Your task to perform on an android device: open chrome and create a bookmark for the current page Image 0: 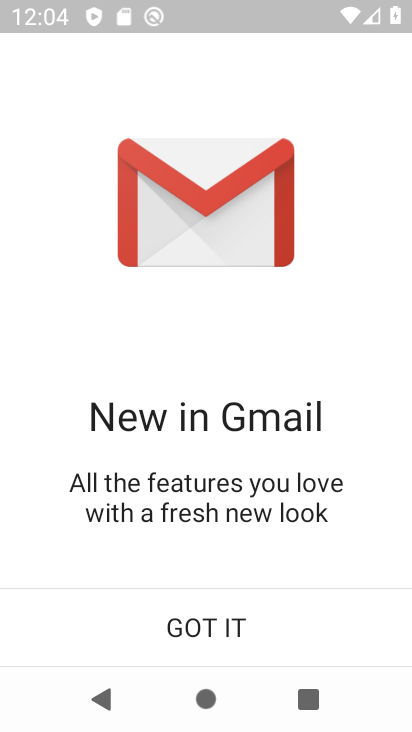
Step 0: press back button
Your task to perform on an android device: open chrome and create a bookmark for the current page Image 1: 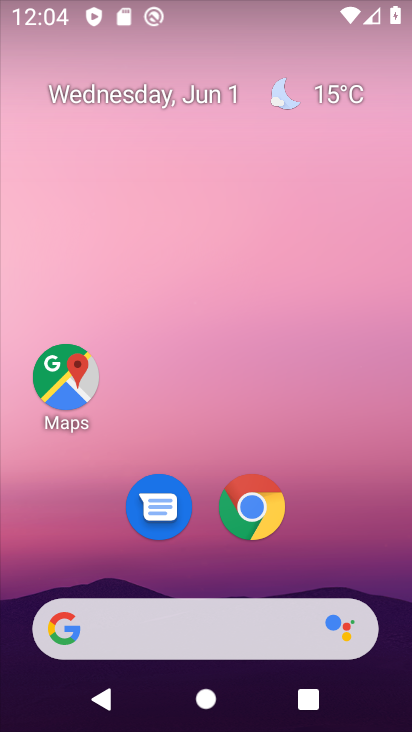
Step 1: click (251, 507)
Your task to perform on an android device: open chrome and create a bookmark for the current page Image 2: 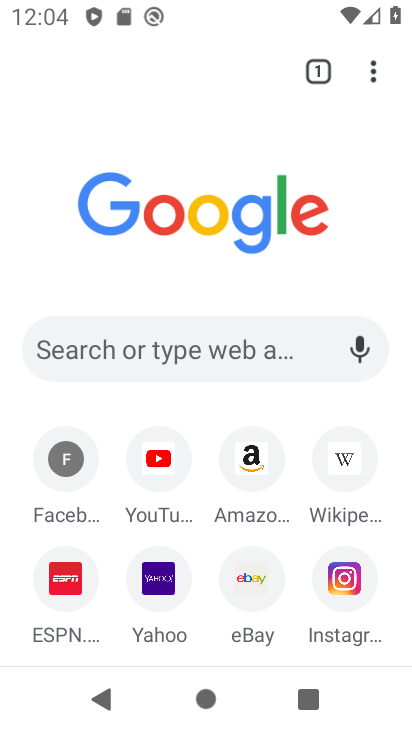
Step 2: click (373, 68)
Your task to perform on an android device: open chrome and create a bookmark for the current page Image 3: 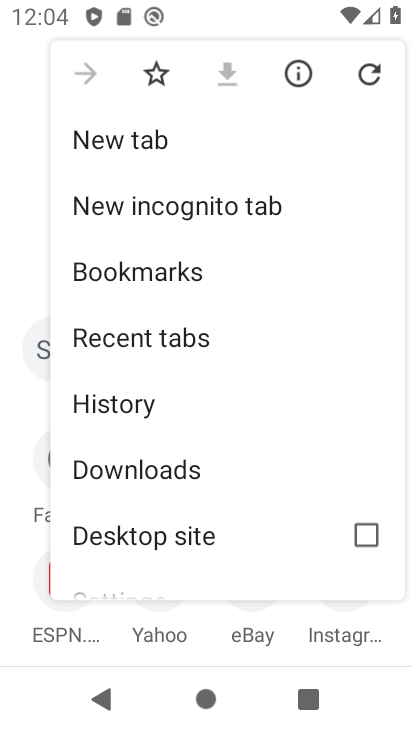
Step 3: drag from (192, 420) to (219, 344)
Your task to perform on an android device: open chrome and create a bookmark for the current page Image 4: 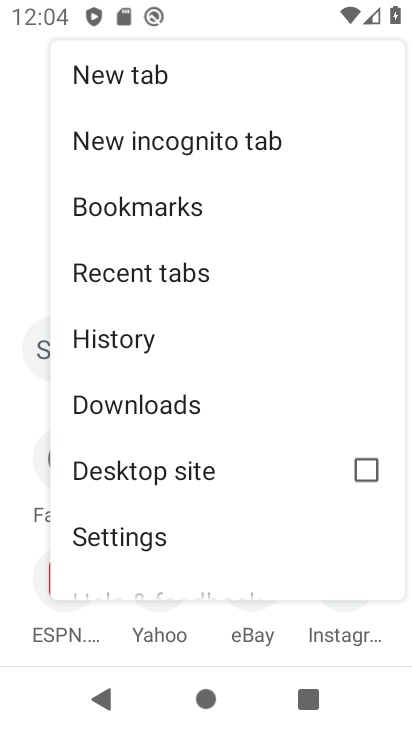
Step 4: drag from (126, 501) to (191, 427)
Your task to perform on an android device: open chrome and create a bookmark for the current page Image 5: 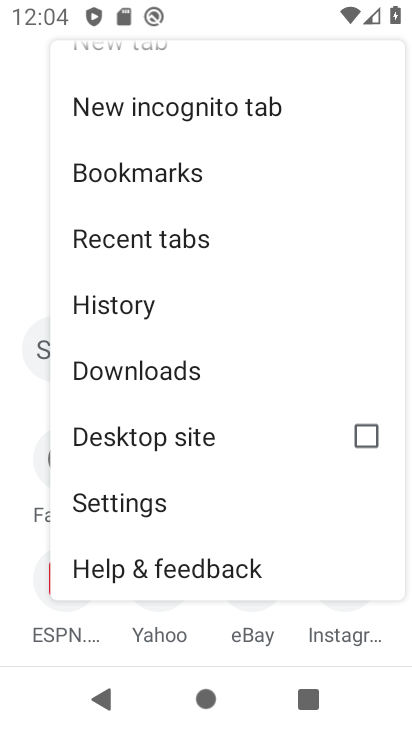
Step 5: drag from (257, 230) to (264, 430)
Your task to perform on an android device: open chrome and create a bookmark for the current page Image 6: 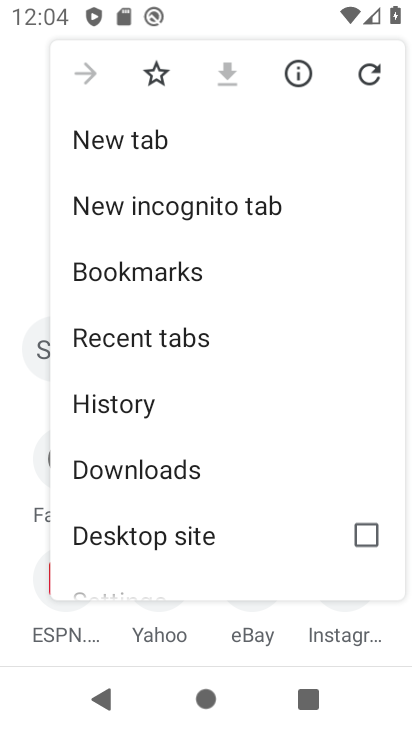
Step 6: click (155, 77)
Your task to perform on an android device: open chrome and create a bookmark for the current page Image 7: 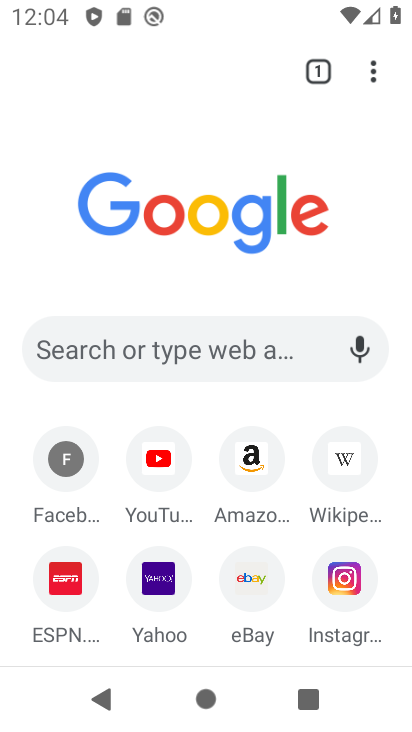
Step 7: click (373, 66)
Your task to perform on an android device: open chrome and create a bookmark for the current page Image 8: 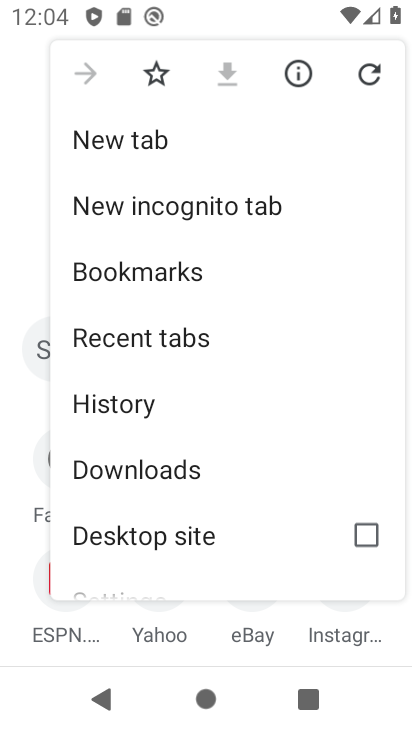
Step 8: click (155, 67)
Your task to perform on an android device: open chrome and create a bookmark for the current page Image 9: 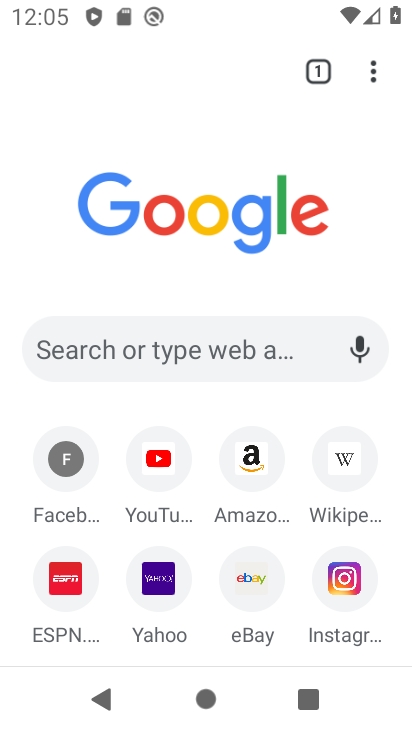
Step 9: task complete